Your task to perform on an android device: open app "eBay: The shopping marketplace" (install if not already installed) Image 0: 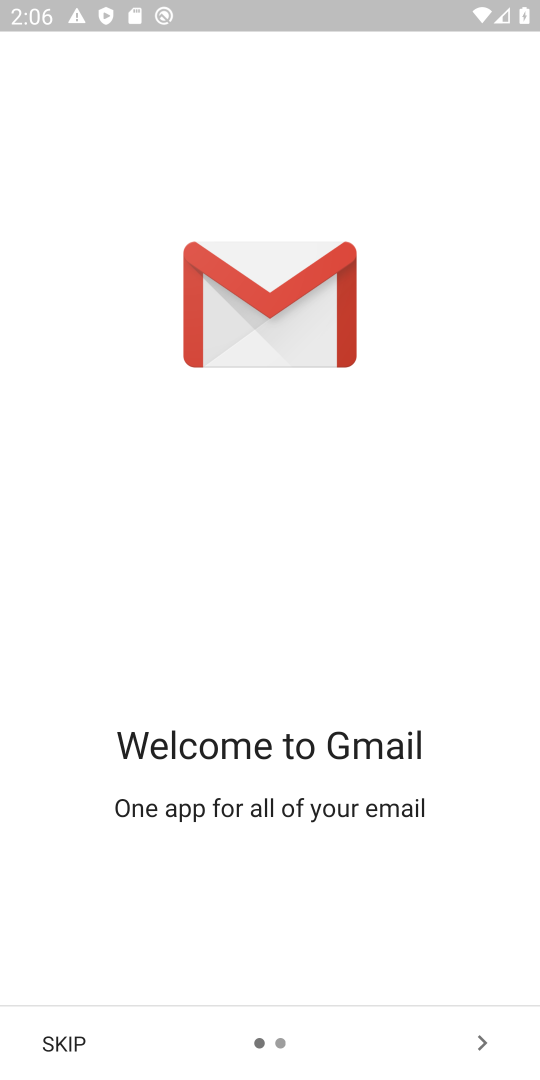
Step 0: press home button
Your task to perform on an android device: open app "eBay: The shopping marketplace" (install if not already installed) Image 1: 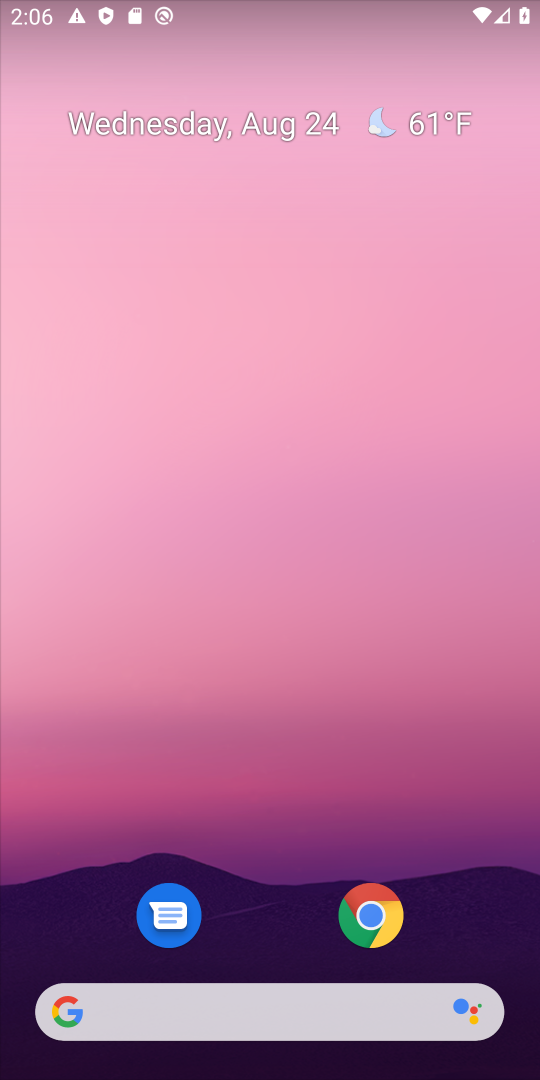
Step 1: drag from (273, 836) to (291, 238)
Your task to perform on an android device: open app "eBay: The shopping marketplace" (install if not already installed) Image 2: 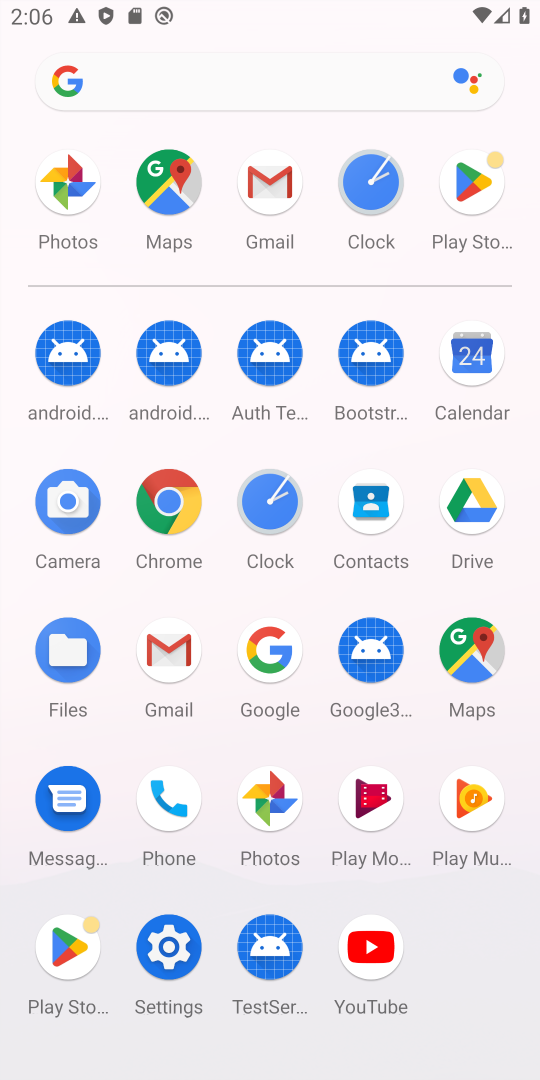
Step 2: click (478, 183)
Your task to perform on an android device: open app "eBay: The shopping marketplace" (install if not already installed) Image 3: 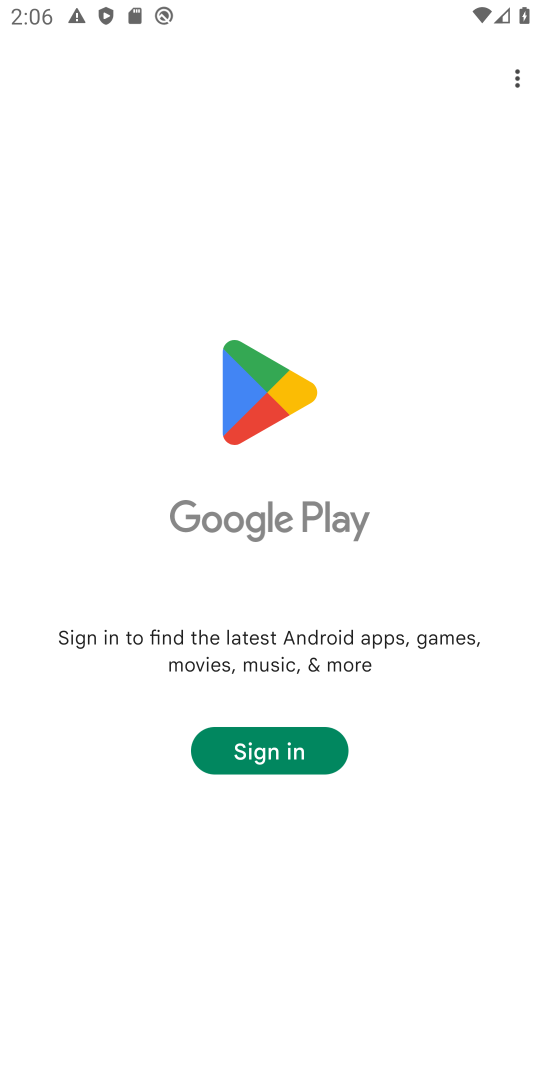
Step 3: task complete